Your task to perform on an android device: Open Chrome and go to the settings page Image 0: 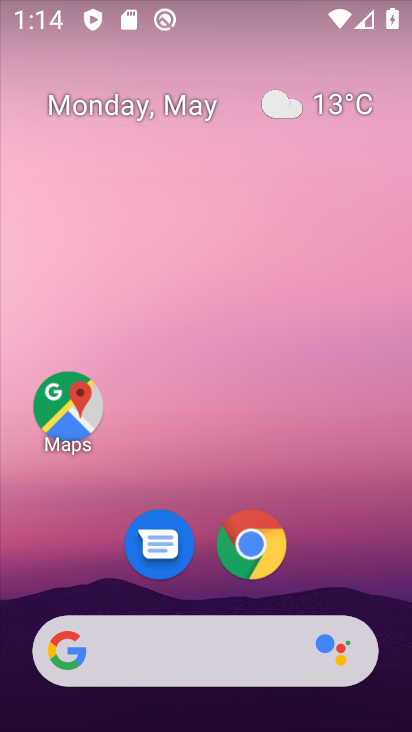
Step 0: click (253, 540)
Your task to perform on an android device: Open Chrome and go to the settings page Image 1: 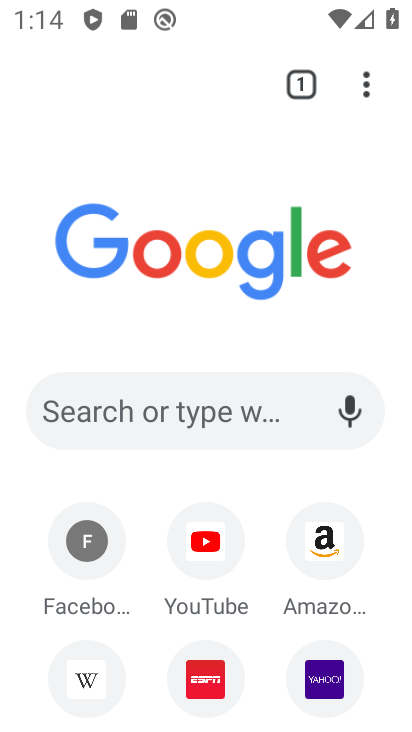
Step 1: click (369, 95)
Your task to perform on an android device: Open Chrome and go to the settings page Image 2: 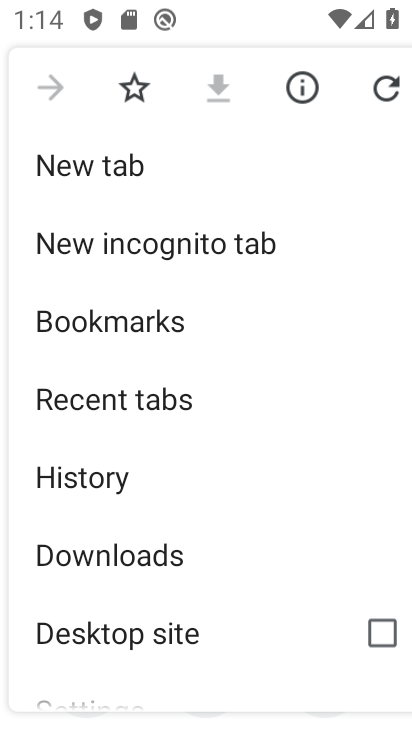
Step 2: drag from (243, 543) to (326, 153)
Your task to perform on an android device: Open Chrome and go to the settings page Image 3: 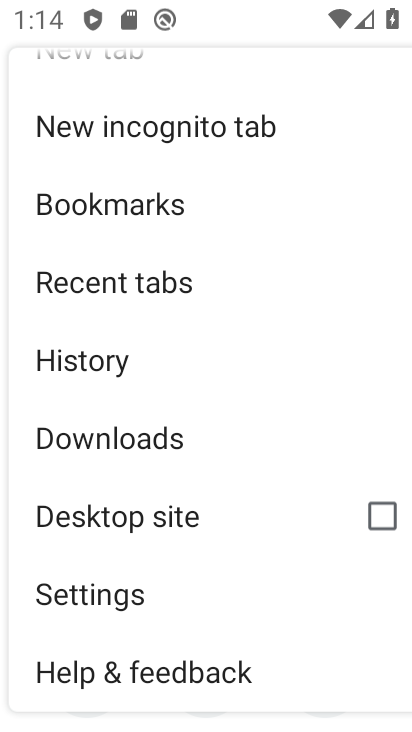
Step 3: click (117, 600)
Your task to perform on an android device: Open Chrome and go to the settings page Image 4: 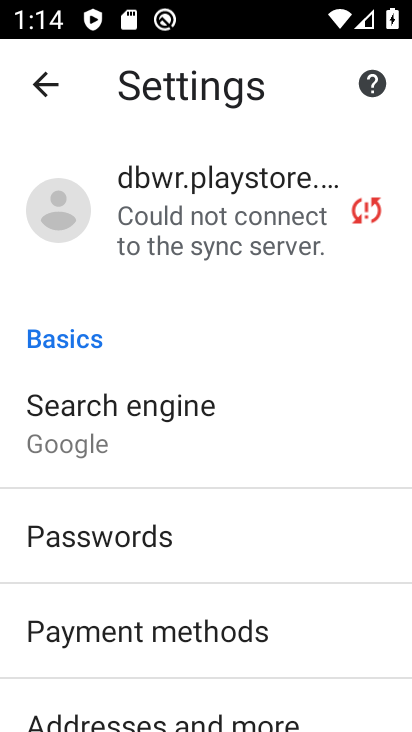
Step 4: task complete